Your task to perform on an android device: Is it going to rain today? Image 0: 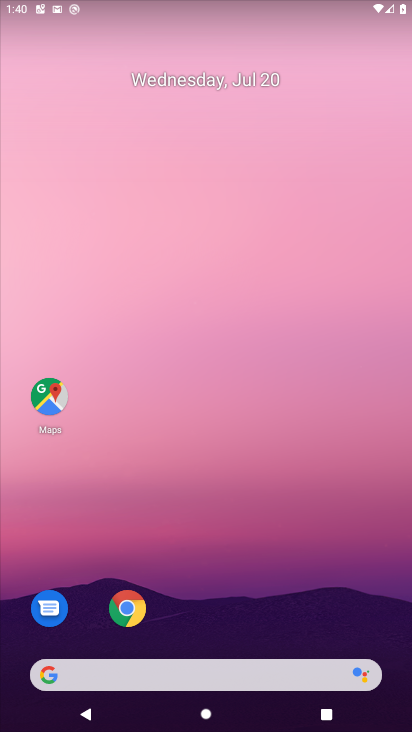
Step 0: drag from (199, 640) to (249, 296)
Your task to perform on an android device: Is it going to rain today? Image 1: 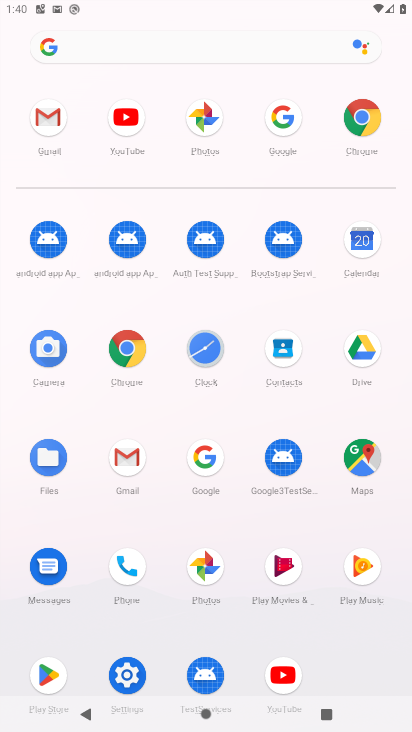
Step 1: click (207, 458)
Your task to perform on an android device: Is it going to rain today? Image 2: 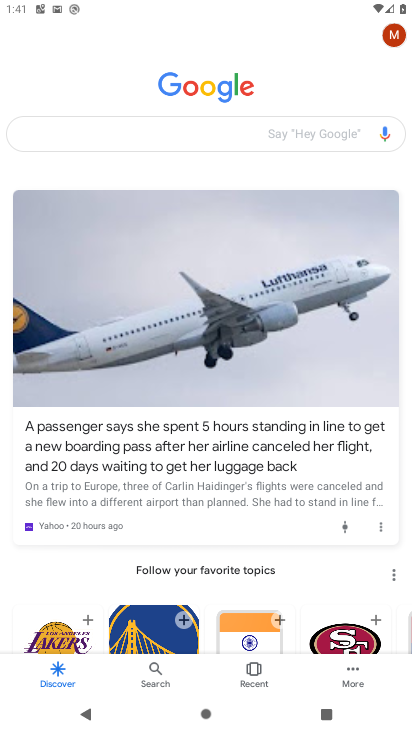
Step 2: click (172, 136)
Your task to perform on an android device: Is it going to rain today? Image 3: 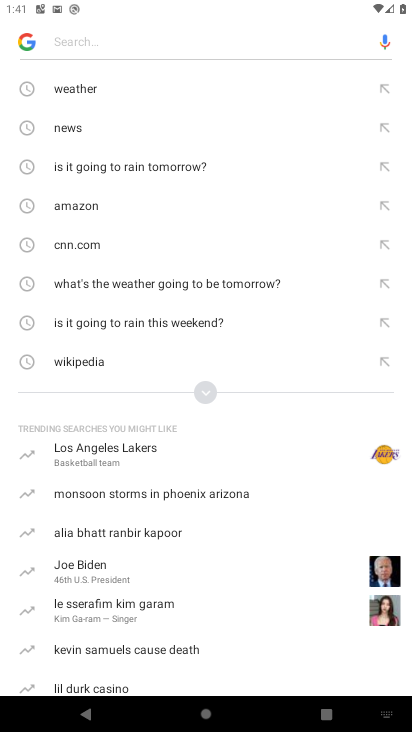
Step 3: click (208, 388)
Your task to perform on an android device: Is it going to rain today? Image 4: 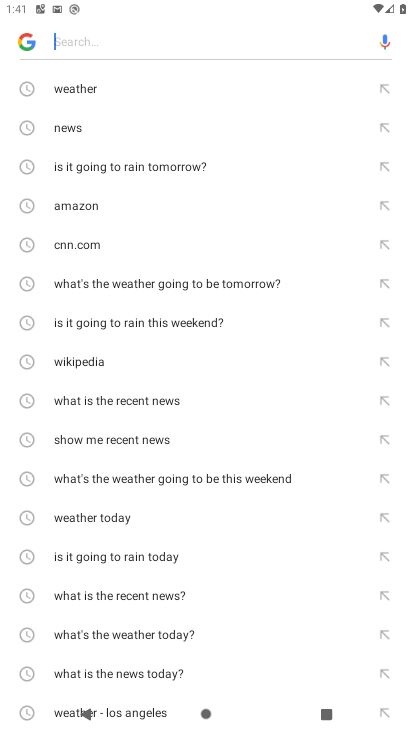
Step 4: click (111, 560)
Your task to perform on an android device: Is it going to rain today? Image 5: 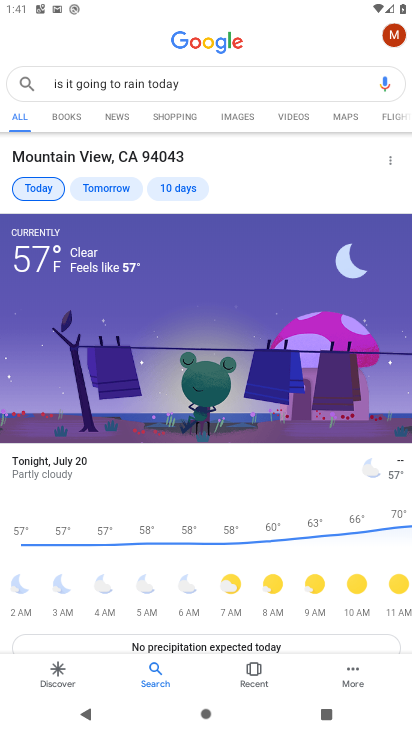
Step 5: task complete